Your task to perform on an android device: Open Youtube and go to "Your channel" Image 0: 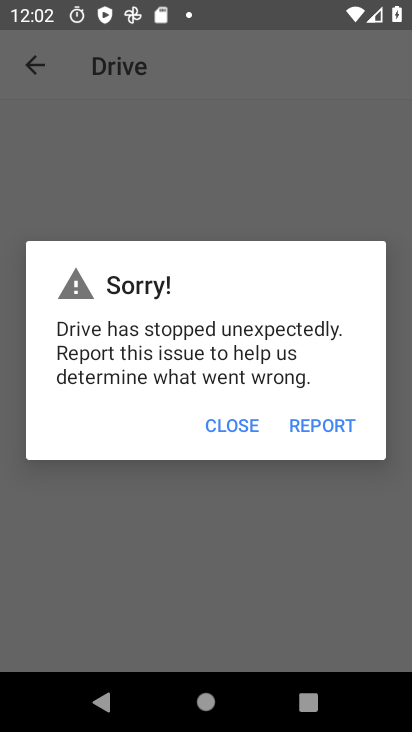
Step 0: press home button
Your task to perform on an android device: Open Youtube and go to "Your channel" Image 1: 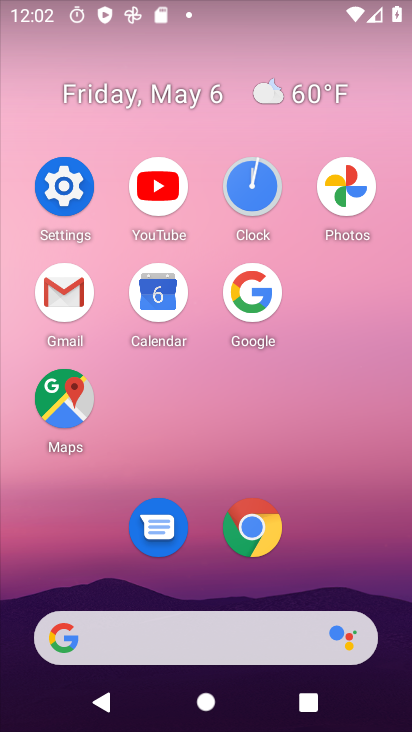
Step 1: click (82, 545)
Your task to perform on an android device: Open Youtube and go to "Your channel" Image 2: 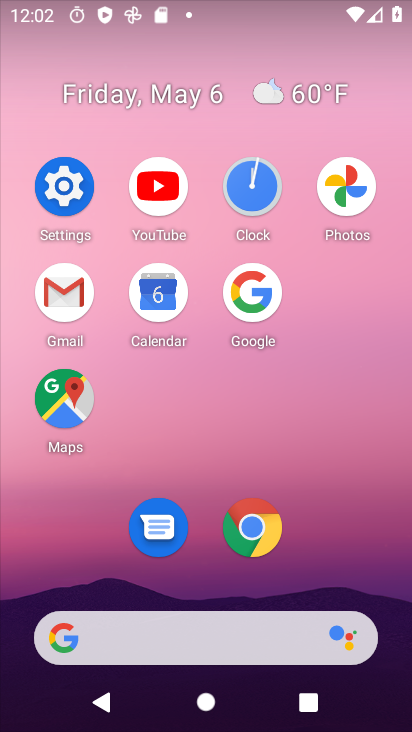
Step 2: click (139, 202)
Your task to perform on an android device: Open Youtube and go to "Your channel" Image 3: 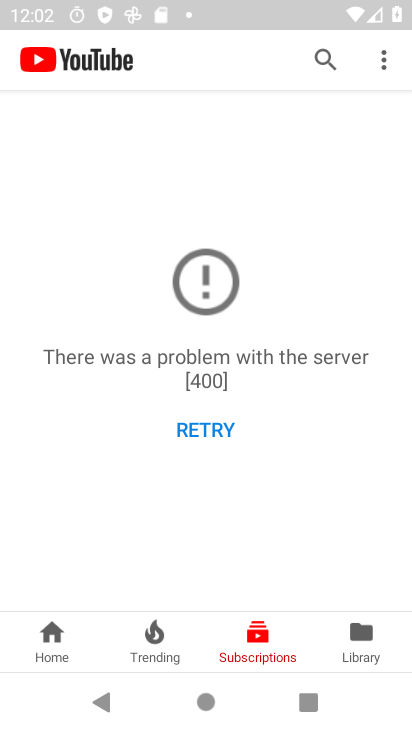
Step 3: click (358, 628)
Your task to perform on an android device: Open Youtube and go to "Your channel" Image 4: 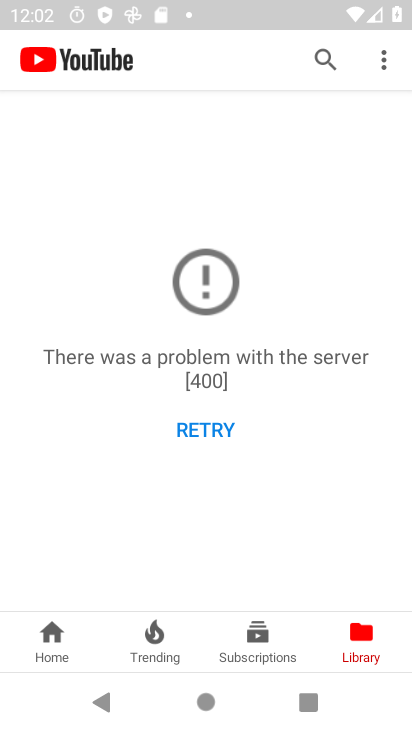
Step 4: task complete